Your task to perform on an android device: Open accessibility settings Image 0: 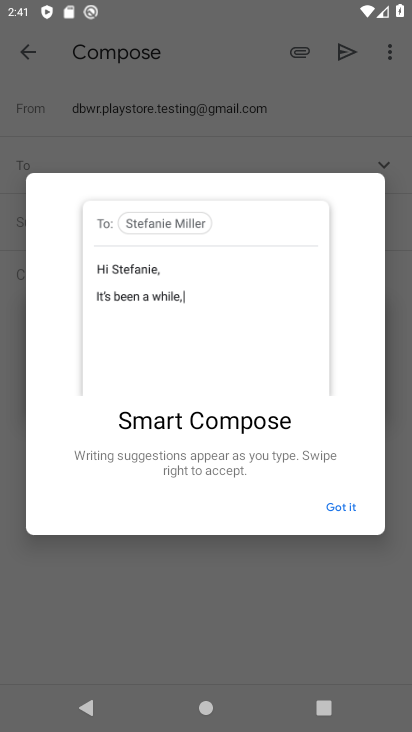
Step 0: press home button
Your task to perform on an android device: Open accessibility settings Image 1: 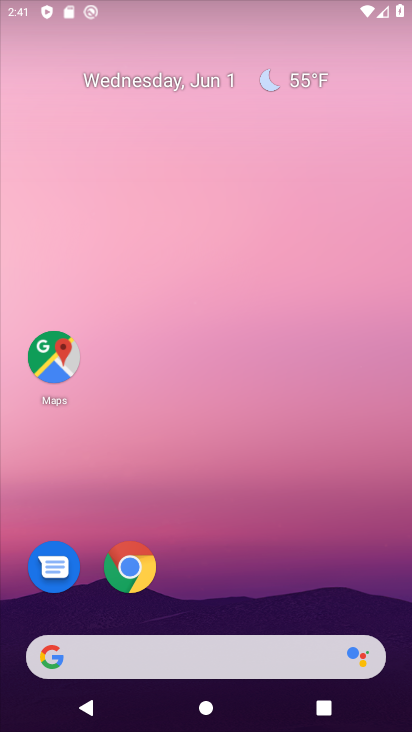
Step 1: drag from (152, 731) to (131, 141)
Your task to perform on an android device: Open accessibility settings Image 2: 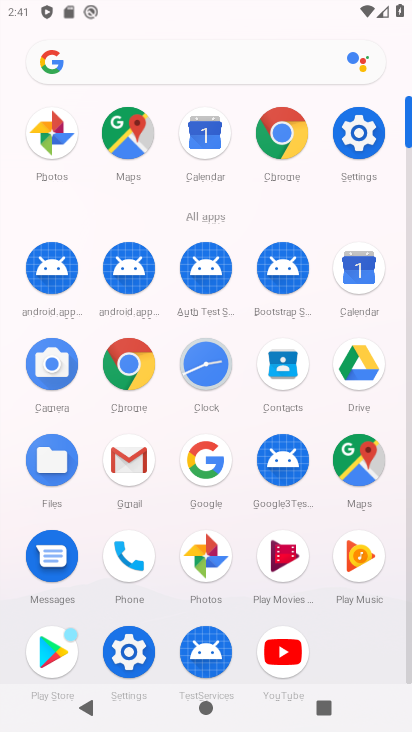
Step 2: click (130, 650)
Your task to perform on an android device: Open accessibility settings Image 3: 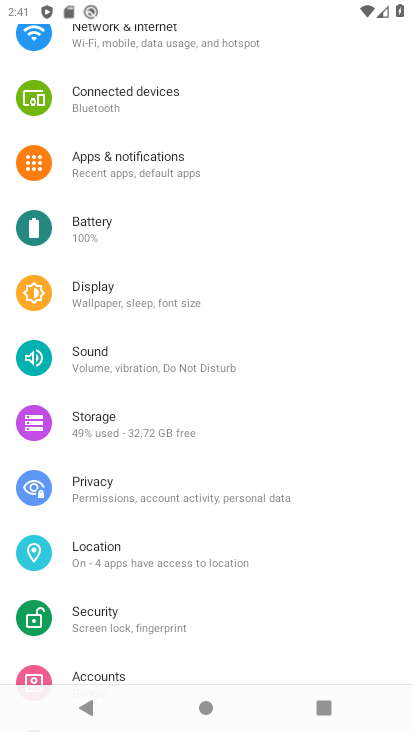
Step 3: drag from (136, 637) to (125, 234)
Your task to perform on an android device: Open accessibility settings Image 4: 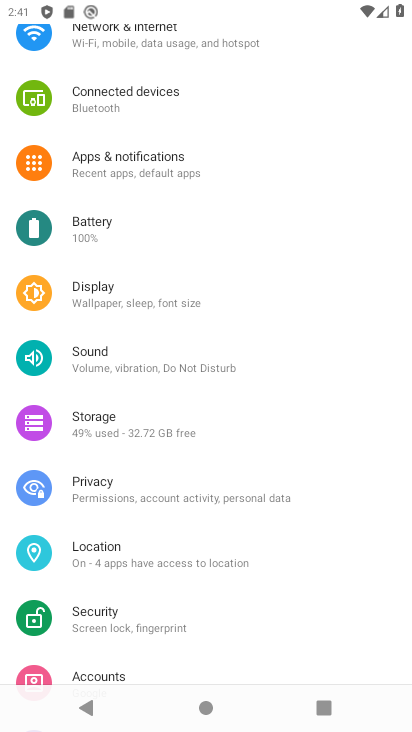
Step 4: drag from (133, 652) to (176, 183)
Your task to perform on an android device: Open accessibility settings Image 5: 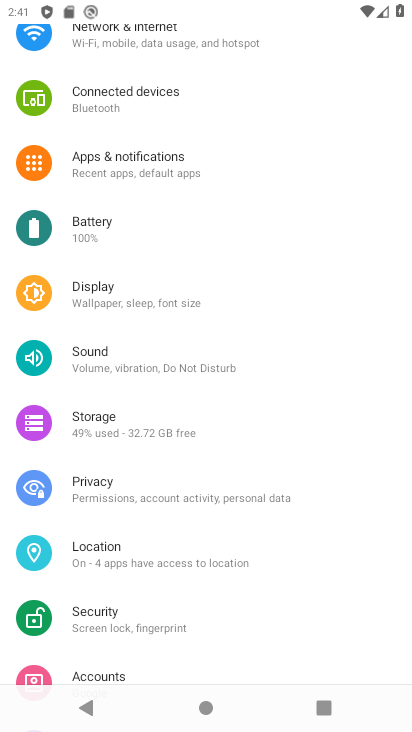
Step 5: drag from (265, 620) to (246, 269)
Your task to perform on an android device: Open accessibility settings Image 6: 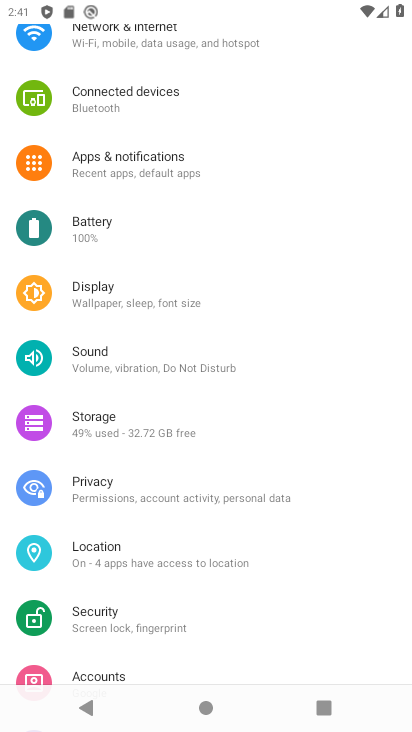
Step 6: drag from (176, 654) to (234, 115)
Your task to perform on an android device: Open accessibility settings Image 7: 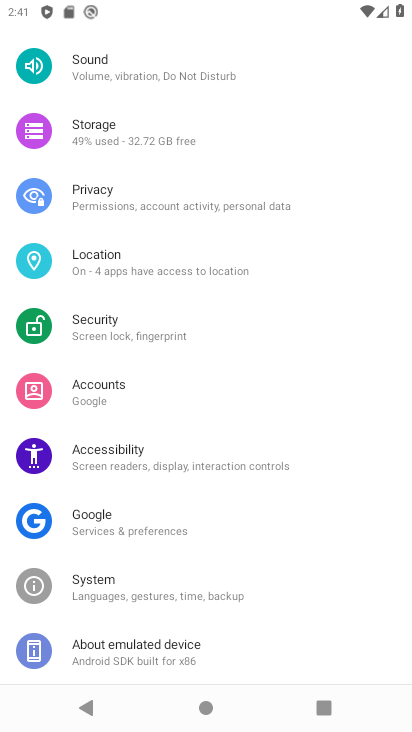
Step 7: click (107, 465)
Your task to perform on an android device: Open accessibility settings Image 8: 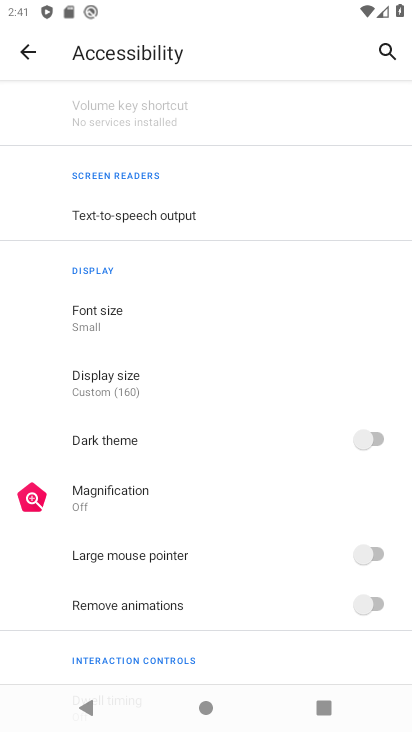
Step 8: task complete